Your task to perform on an android device: turn on javascript in the chrome app Image 0: 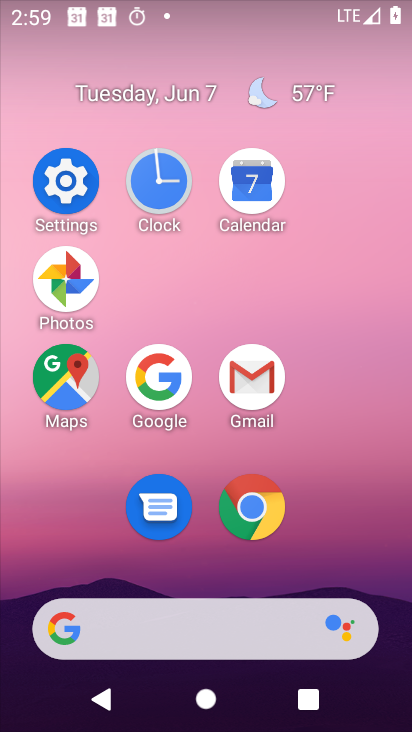
Step 0: press home button
Your task to perform on an android device: turn on javascript in the chrome app Image 1: 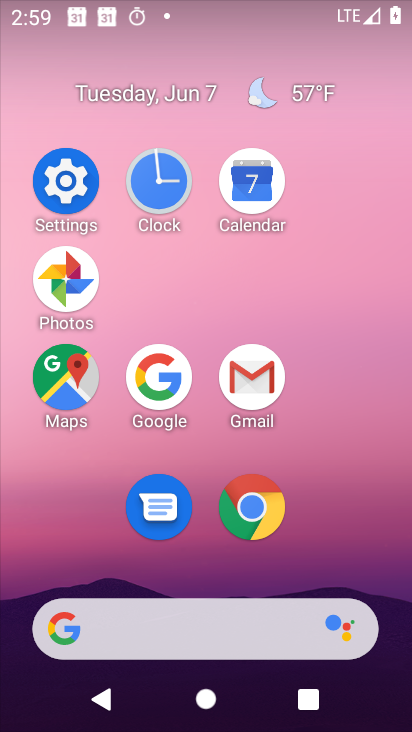
Step 1: click (252, 505)
Your task to perform on an android device: turn on javascript in the chrome app Image 2: 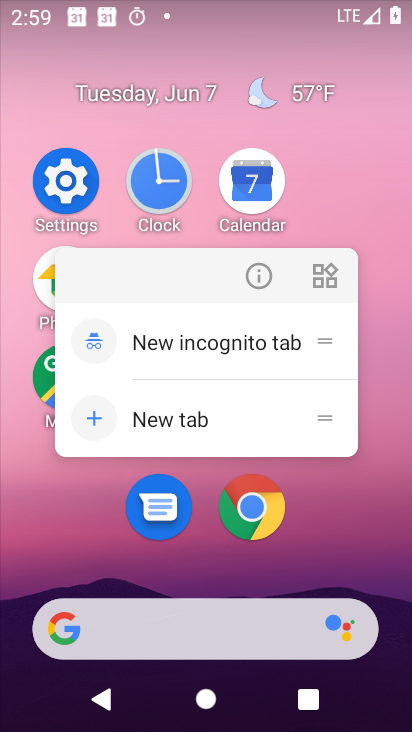
Step 2: click (252, 503)
Your task to perform on an android device: turn on javascript in the chrome app Image 3: 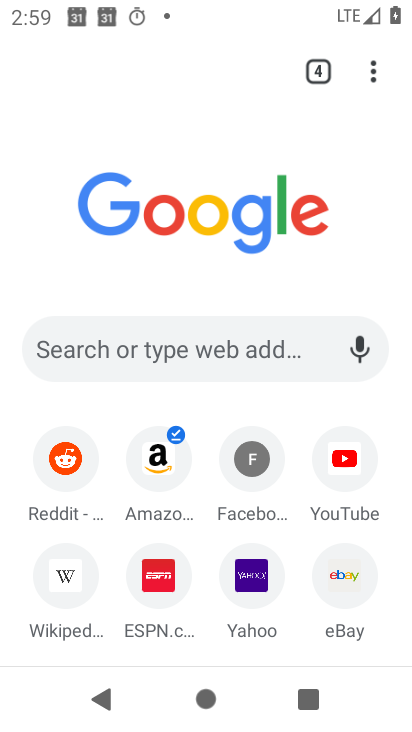
Step 3: click (369, 76)
Your task to perform on an android device: turn on javascript in the chrome app Image 4: 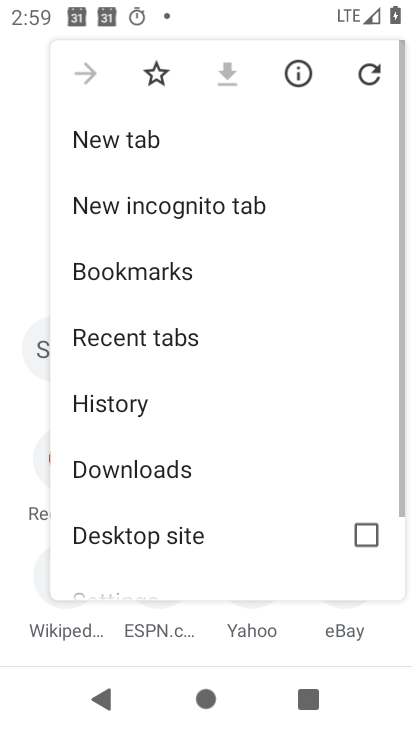
Step 4: drag from (243, 485) to (247, 199)
Your task to perform on an android device: turn on javascript in the chrome app Image 5: 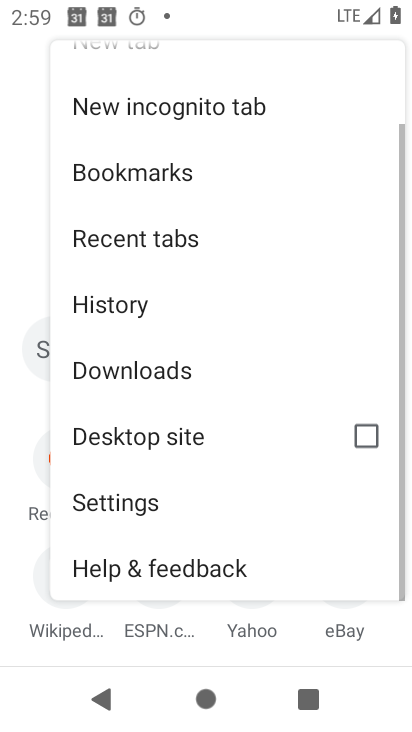
Step 5: click (194, 487)
Your task to perform on an android device: turn on javascript in the chrome app Image 6: 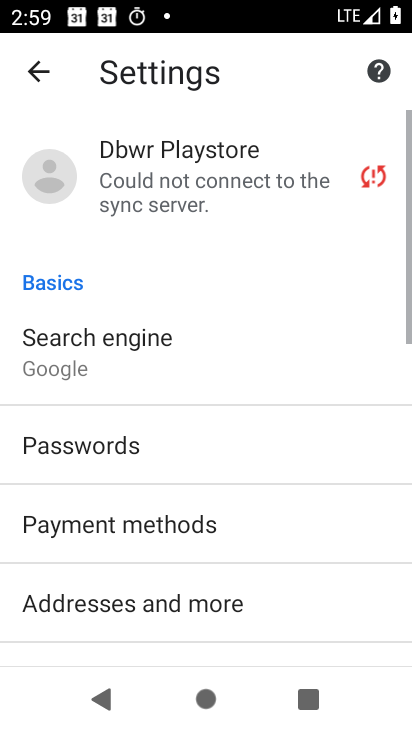
Step 6: drag from (192, 473) to (175, 143)
Your task to perform on an android device: turn on javascript in the chrome app Image 7: 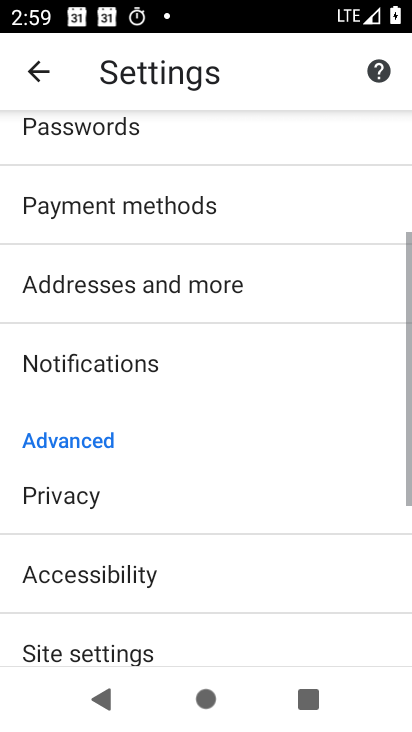
Step 7: drag from (137, 560) to (175, 196)
Your task to perform on an android device: turn on javascript in the chrome app Image 8: 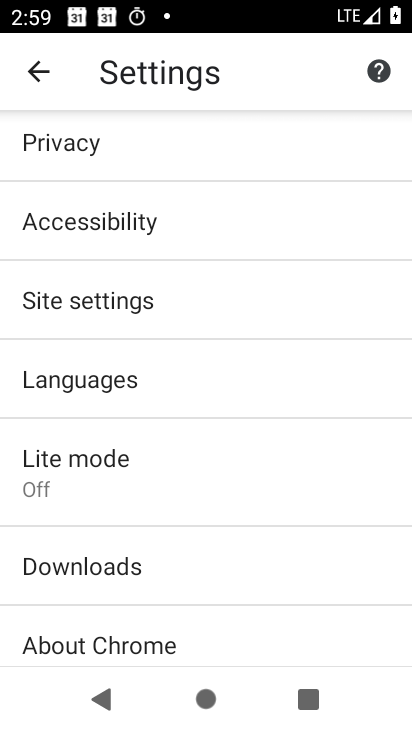
Step 8: click (204, 312)
Your task to perform on an android device: turn on javascript in the chrome app Image 9: 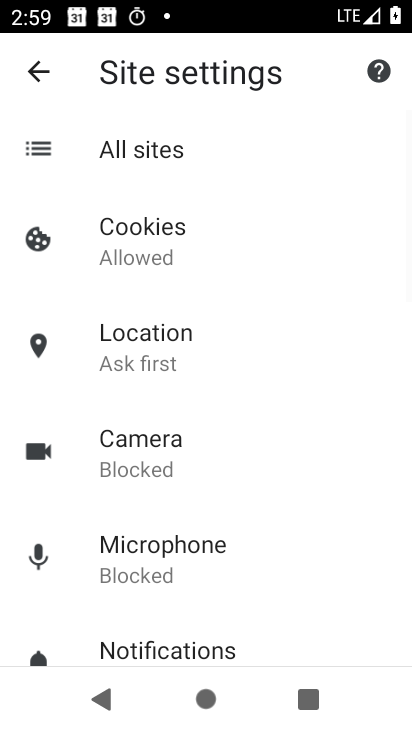
Step 9: drag from (218, 572) to (267, 165)
Your task to perform on an android device: turn on javascript in the chrome app Image 10: 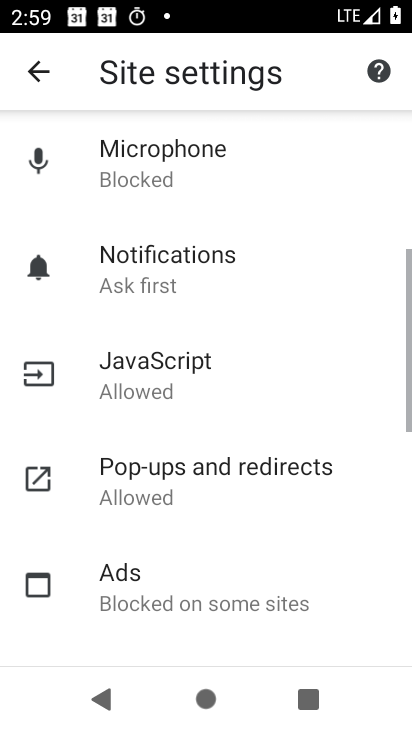
Step 10: click (216, 375)
Your task to perform on an android device: turn on javascript in the chrome app Image 11: 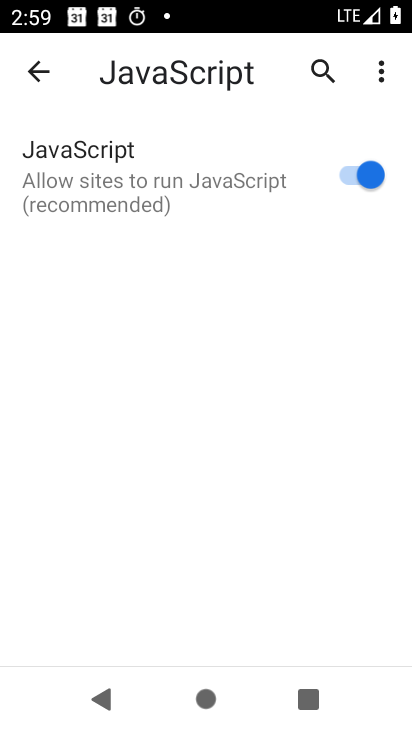
Step 11: task complete